Your task to perform on an android device: change your default location settings in chrome Image 0: 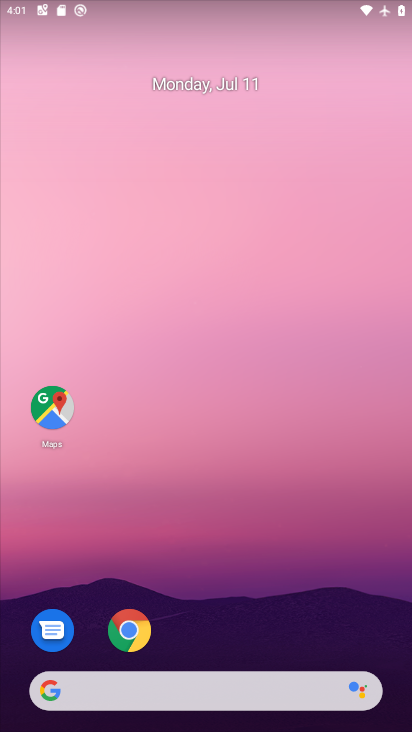
Step 0: click (155, 624)
Your task to perform on an android device: change your default location settings in chrome Image 1: 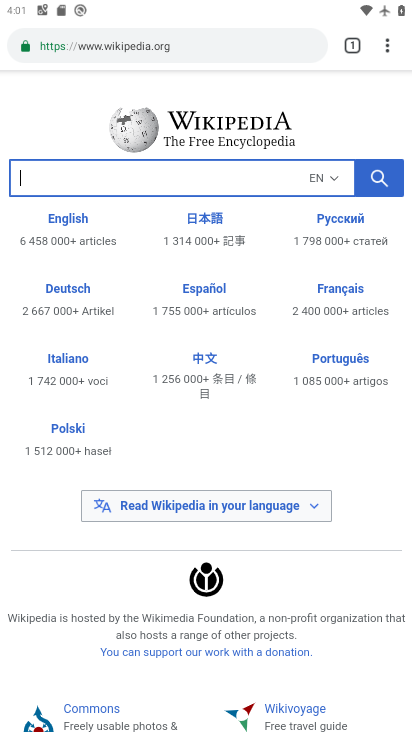
Step 1: click (388, 60)
Your task to perform on an android device: change your default location settings in chrome Image 2: 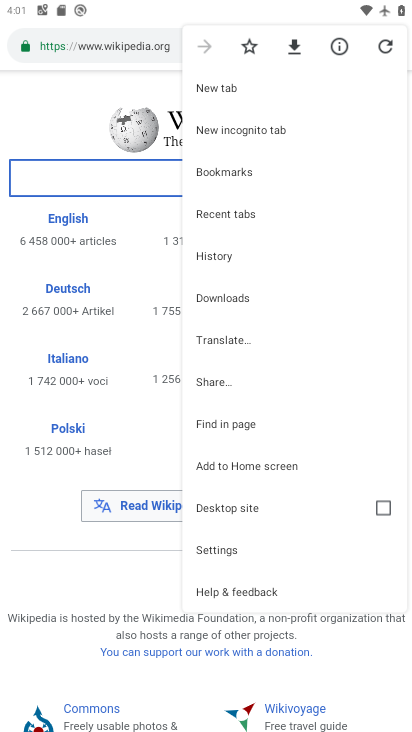
Step 2: click (240, 542)
Your task to perform on an android device: change your default location settings in chrome Image 3: 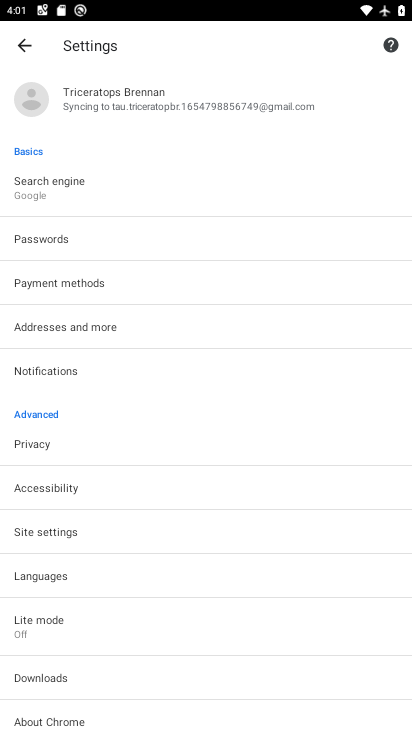
Step 3: click (179, 336)
Your task to perform on an android device: change your default location settings in chrome Image 4: 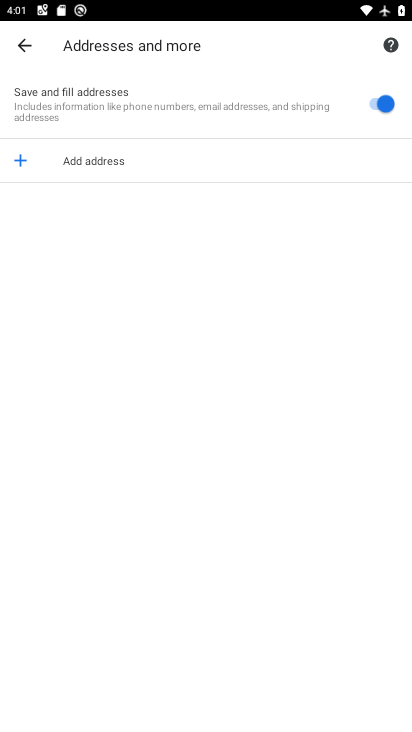
Step 4: task complete